Your task to perform on an android device: uninstall "Spotify" Image 0: 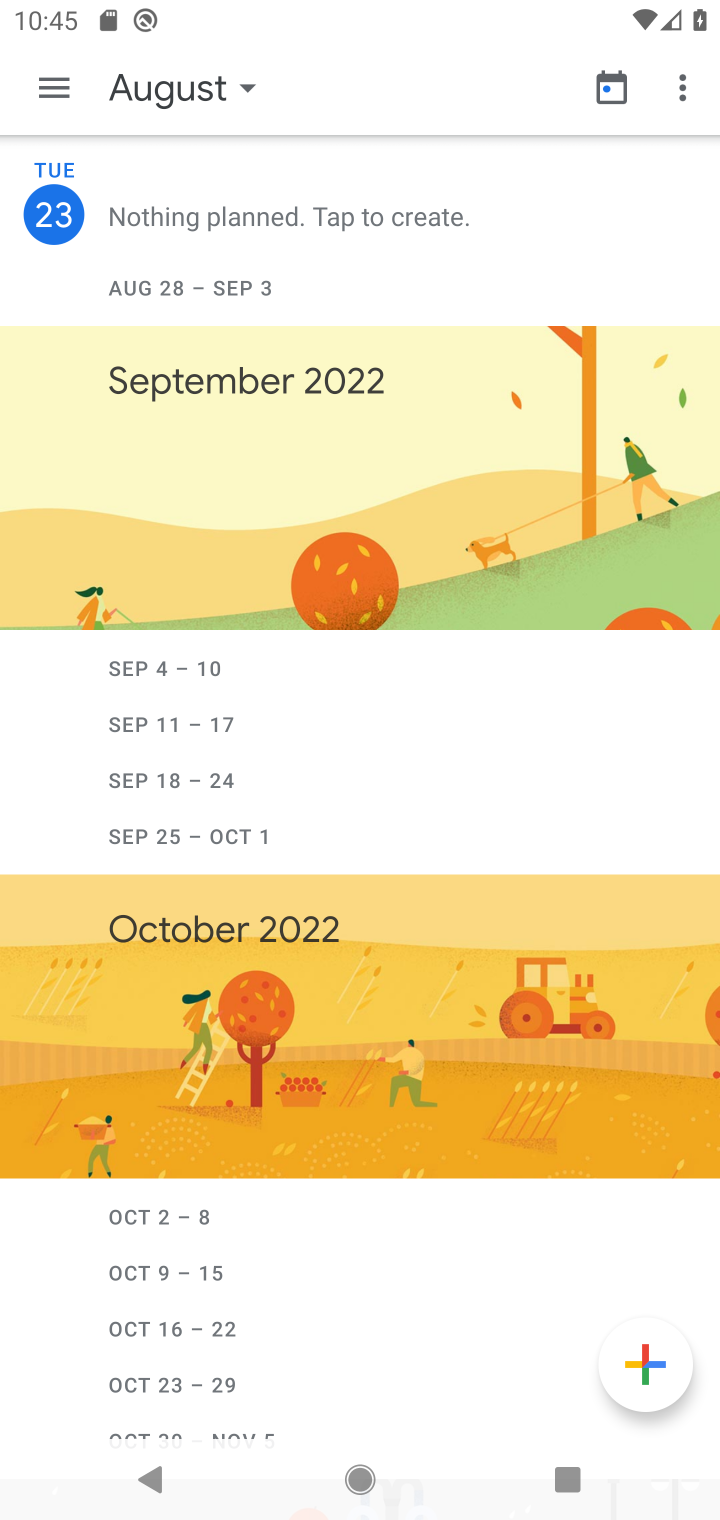
Step 0: press home button
Your task to perform on an android device: uninstall "Spotify" Image 1: 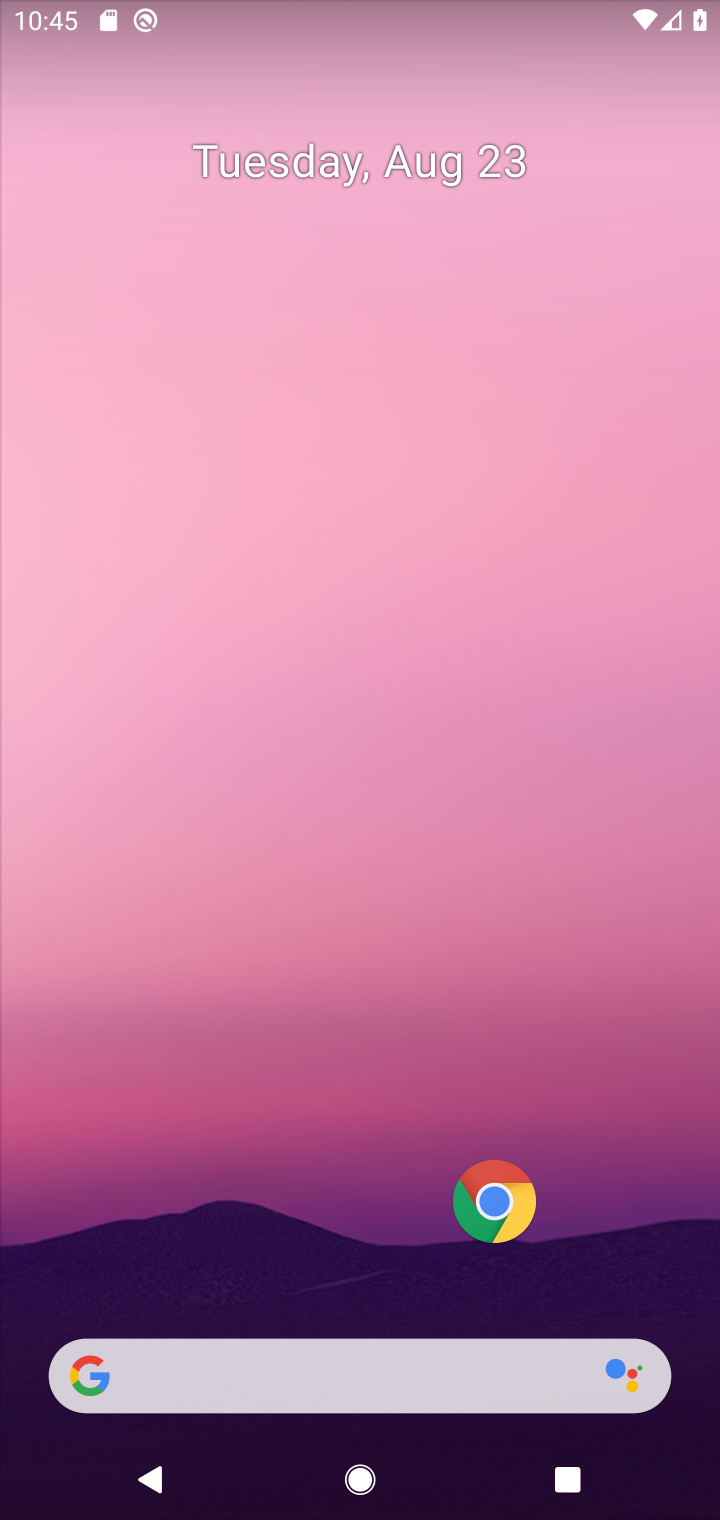
Step 1: drag from (279, 1281) to (323, 513)
Your task to perform on an android device: uninstall "Spotify" Image 2: 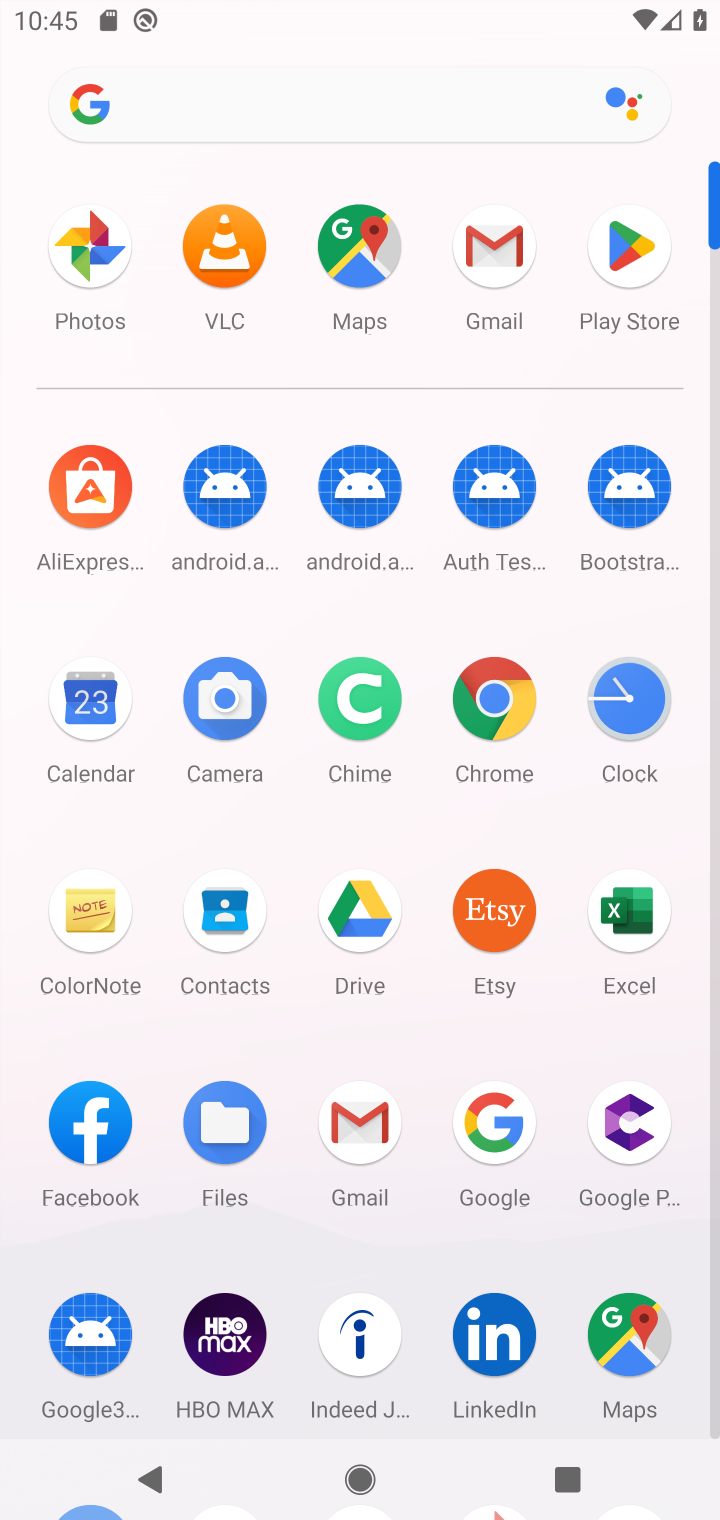
Step 2: click (623, 235)
Your task to perform on an android device: uninstall "Spotify" Image 3: 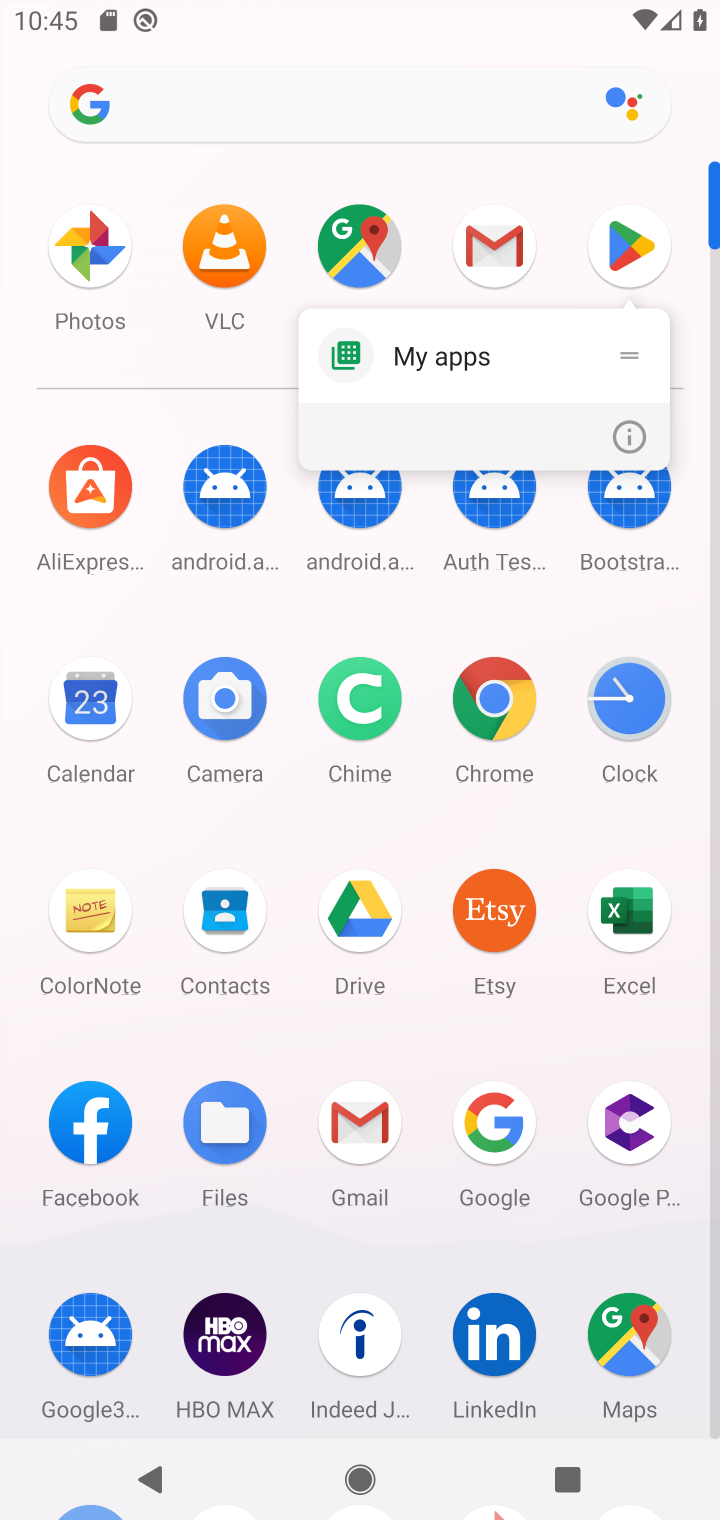
Step 3: drag from (371, 1200) to (474, 441)
Your task to perform on an android device: uninstall "Spotify" Image 4: 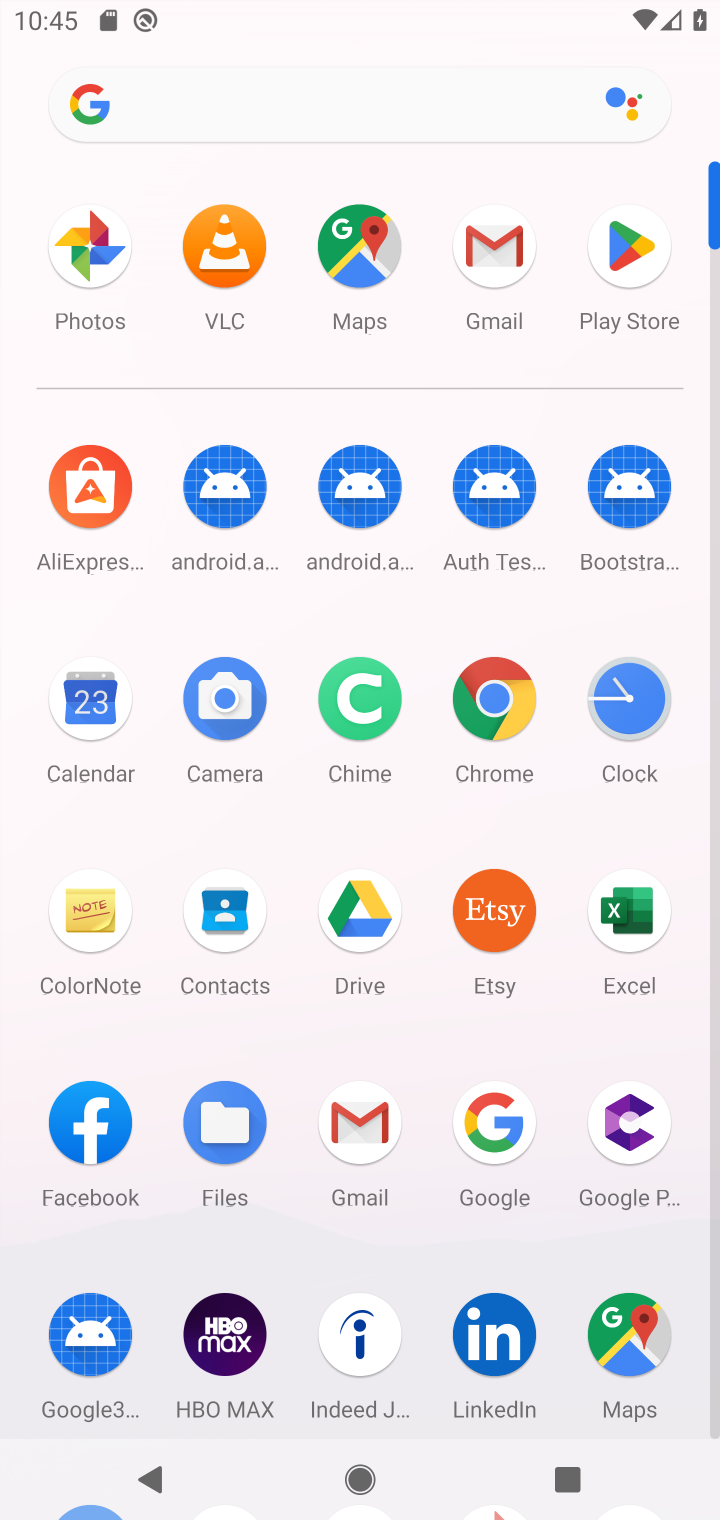
Step 4: drag from (454, 870) to (480, 348)
Your task to perform on an android device: uninstall "Spotify" Image 5: 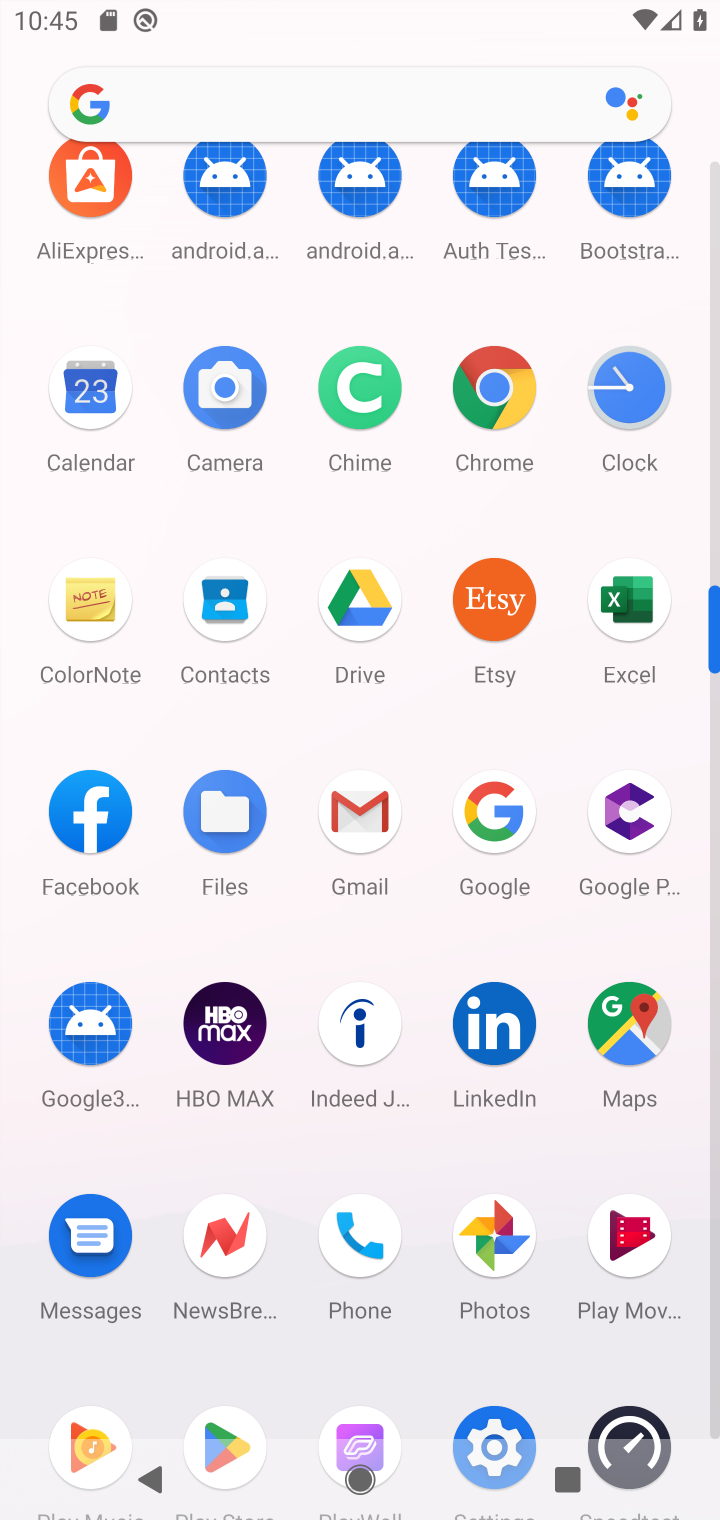
Step 5: drag from (418, 1290) to (457, 406)
Your task to perform on an android device: uninstall "Spotify" Image 6: 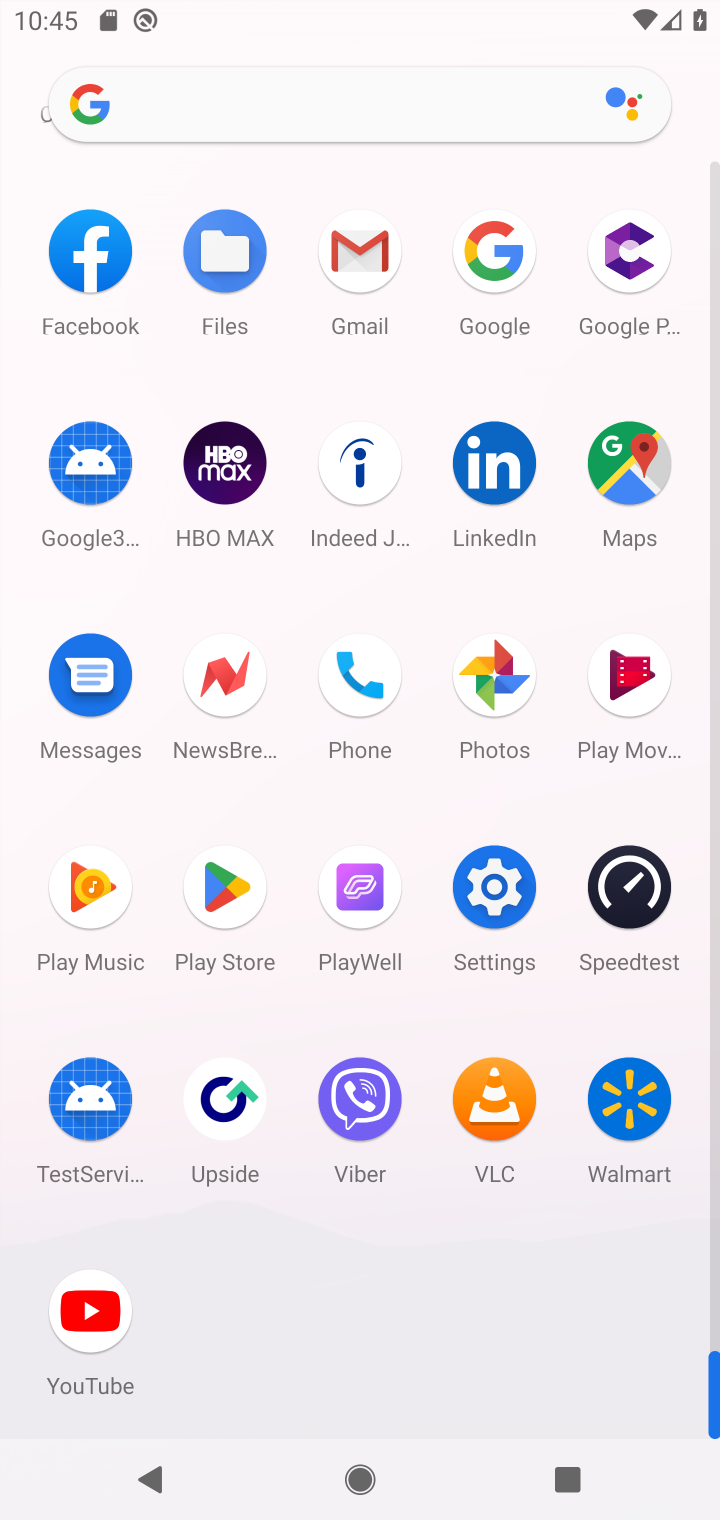
Step 6: click (206, 882)
Your task to perform on an android device: uninstall "Spotify" Image 7: 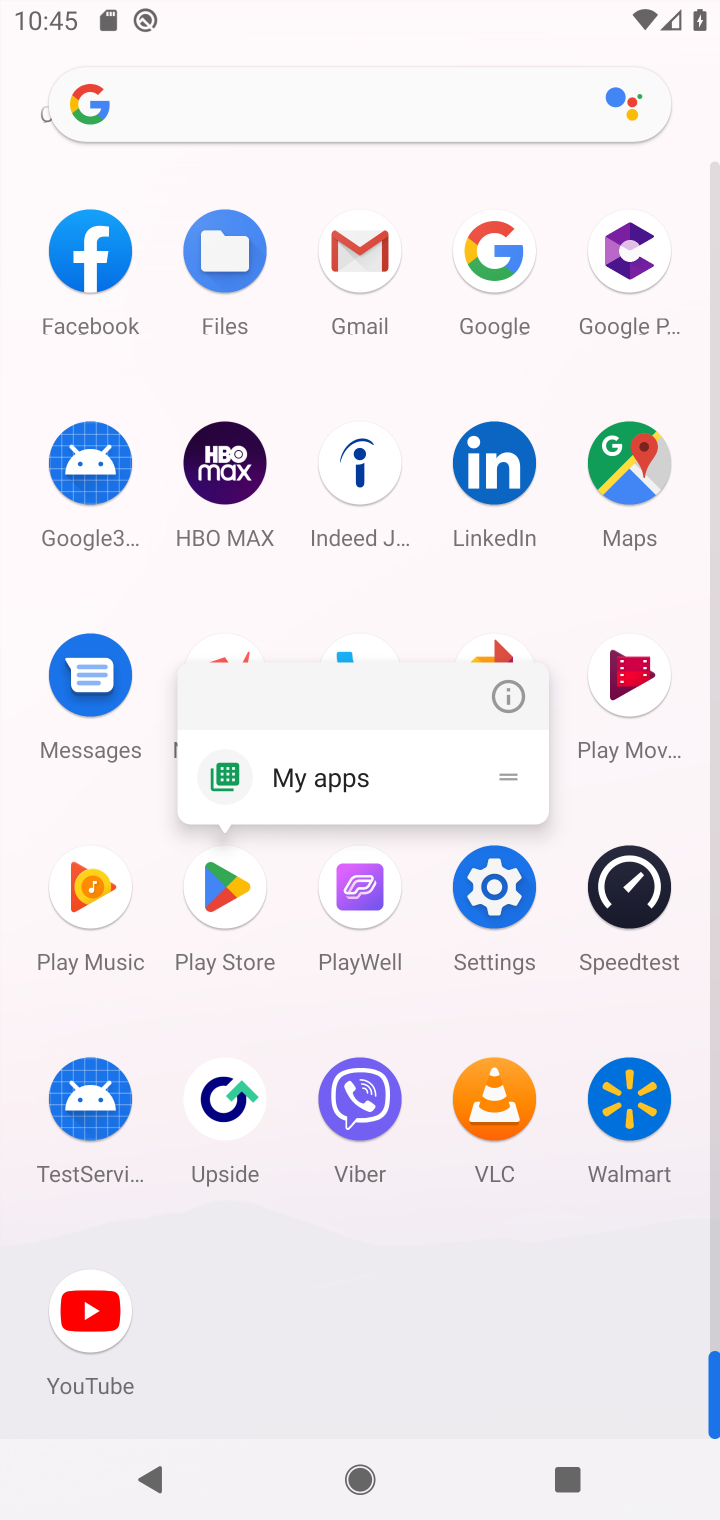
Step 7: click (224, 882)
Your task to perform on an android device: uninstall "Spotify" Image 8: 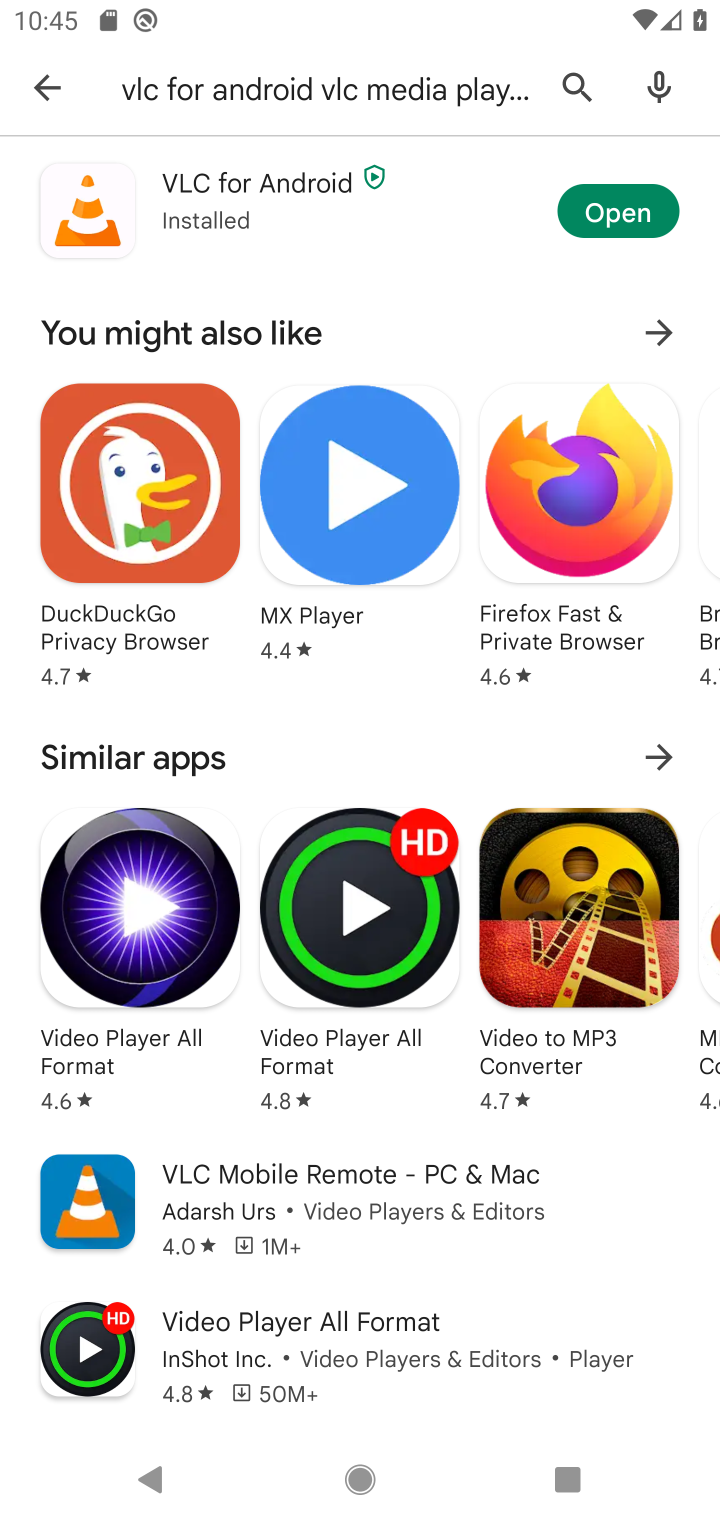
Step 8: click (40, 74)
Your task to perform on an android device: uninstall "Spotify" Image 9: 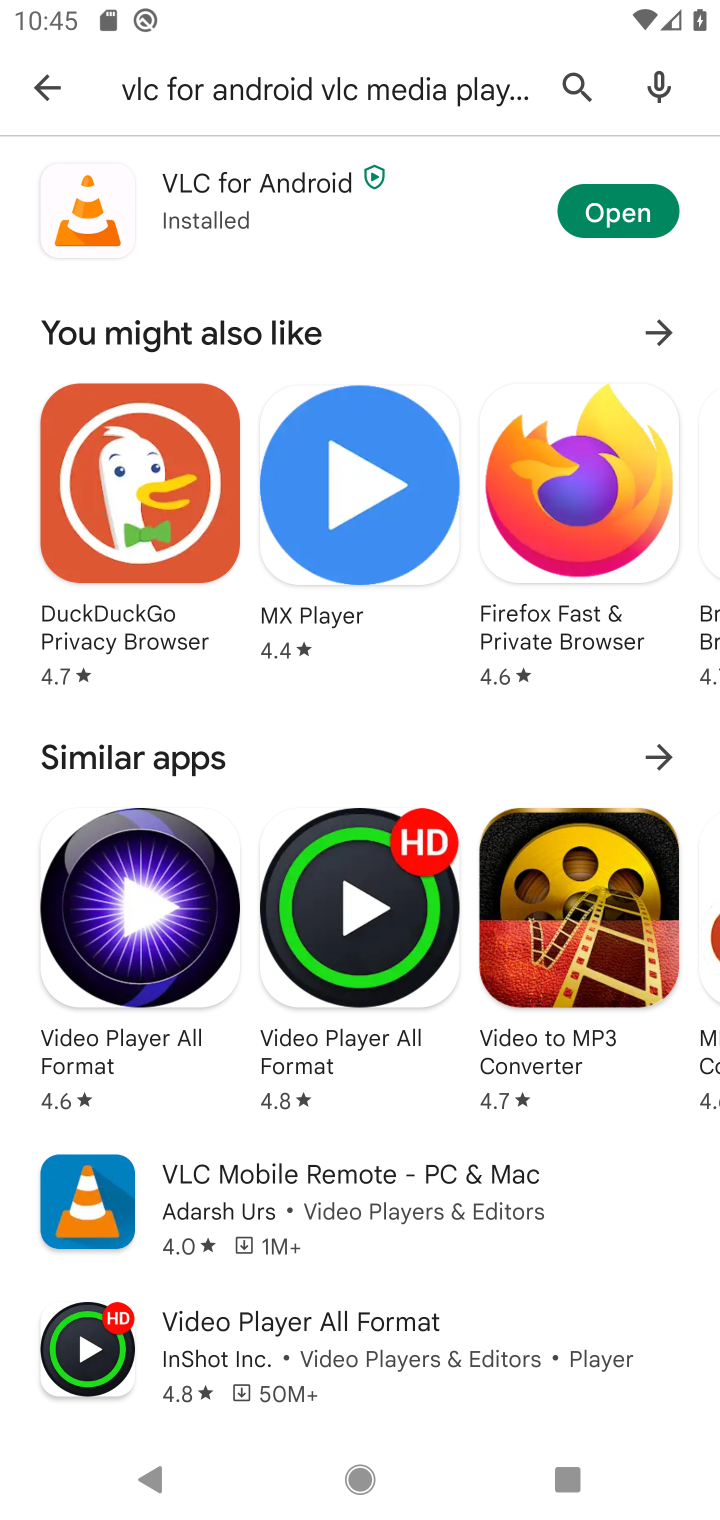
Step 9: click (72, 83)
Your task to perform on an android device: uninstall "Spotify" Image 10: 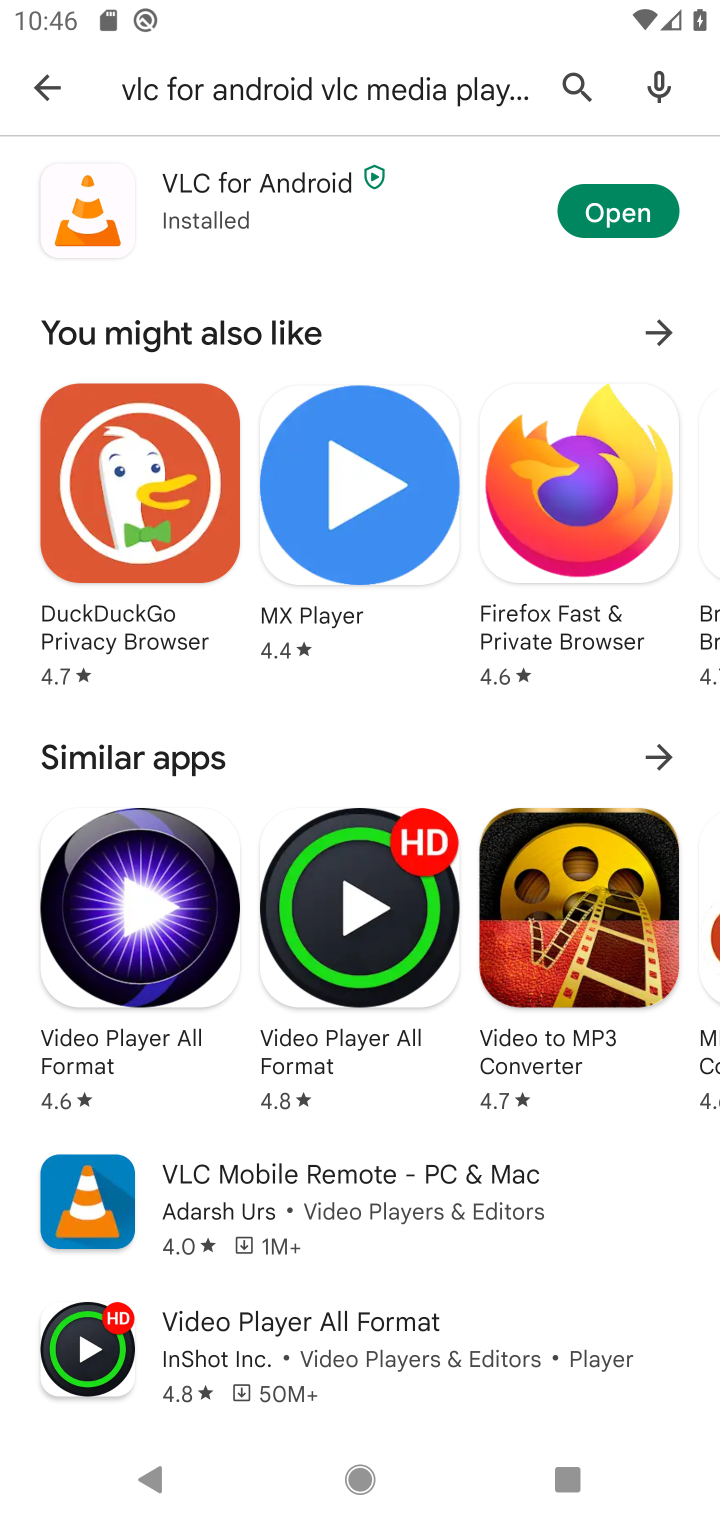
Step 10: click (549, 70)
Your task to perform on an android device: uninstall "Spotify" Image 11: 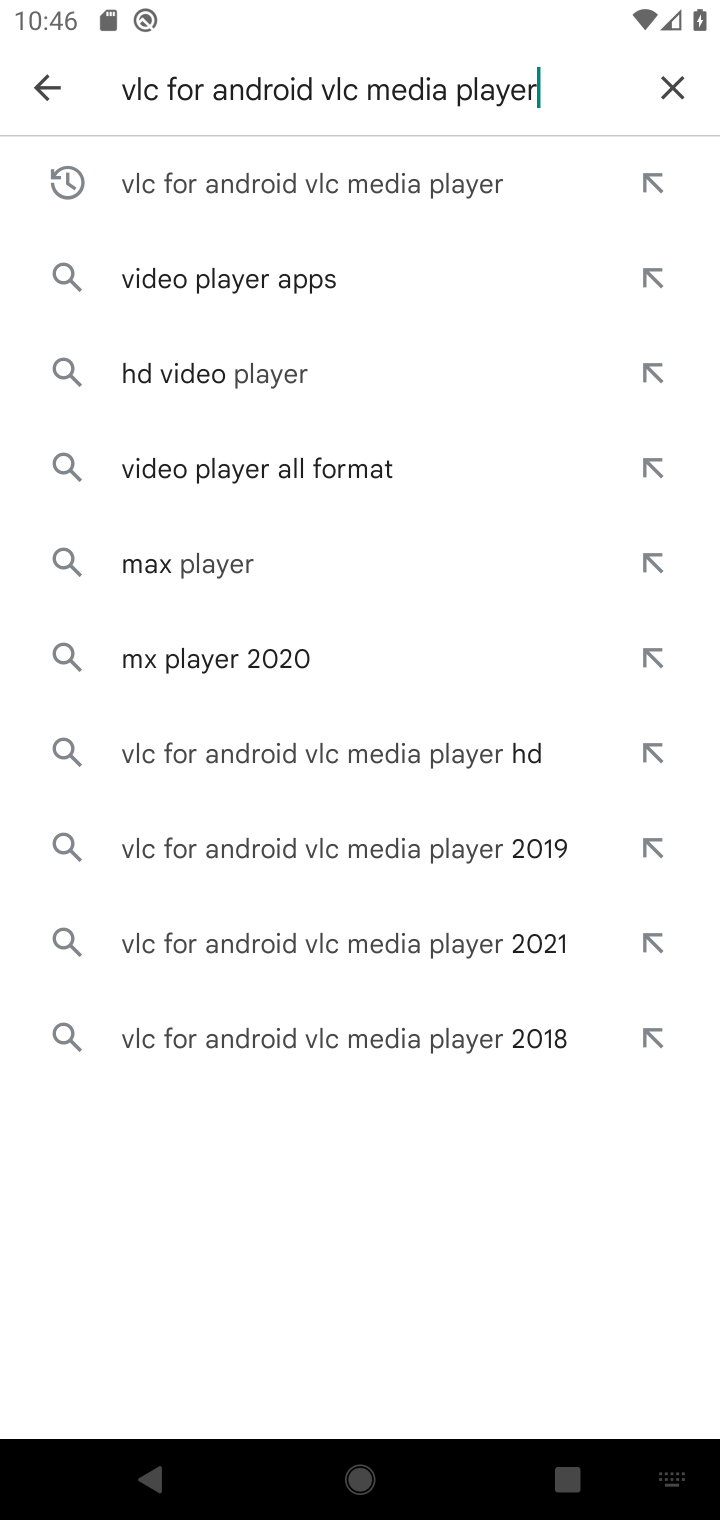
Step 11: click (680, 87)
Your task to perform on an android device: uninstall "Spotify" Image 12: 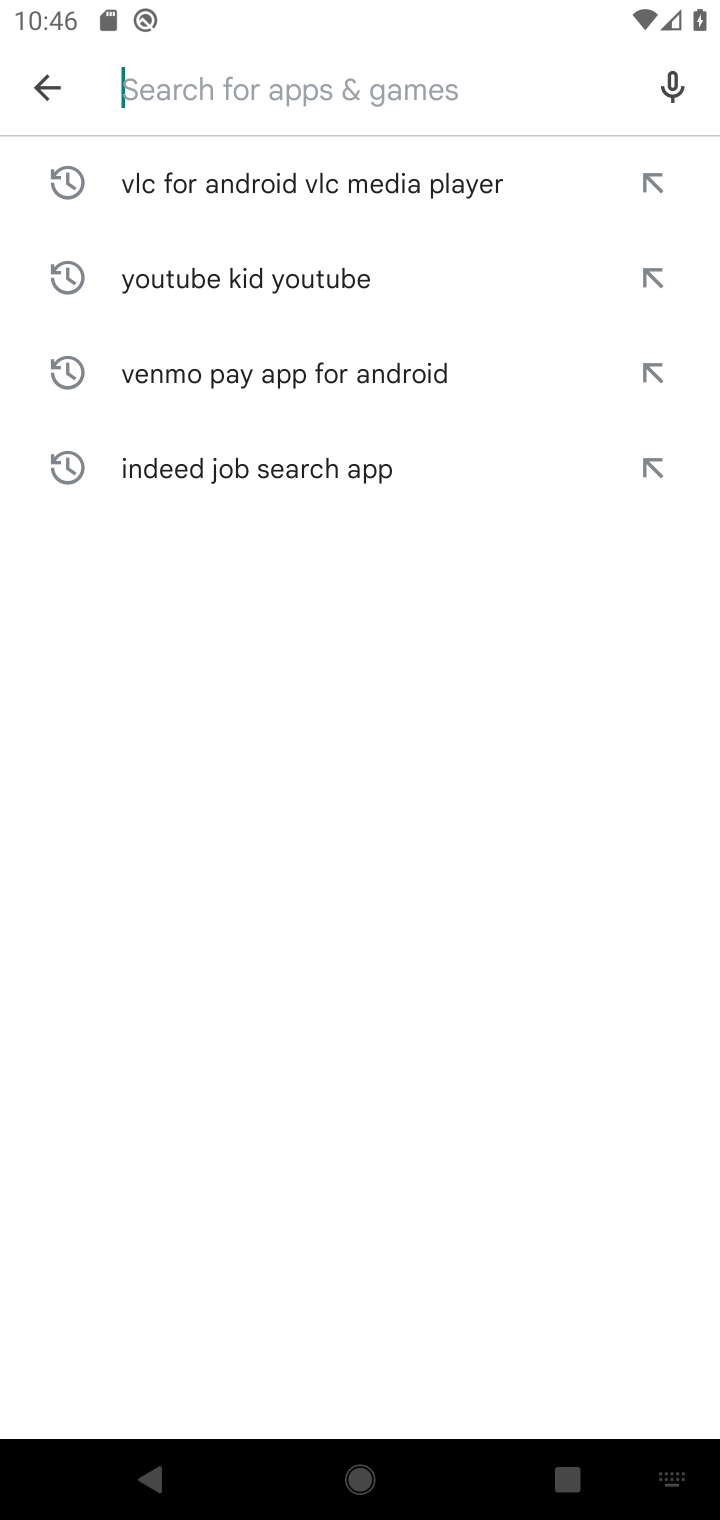
Step 12: click (221, 85)
Your task to perform on an android device: uninstall "Spotify" Image 13: 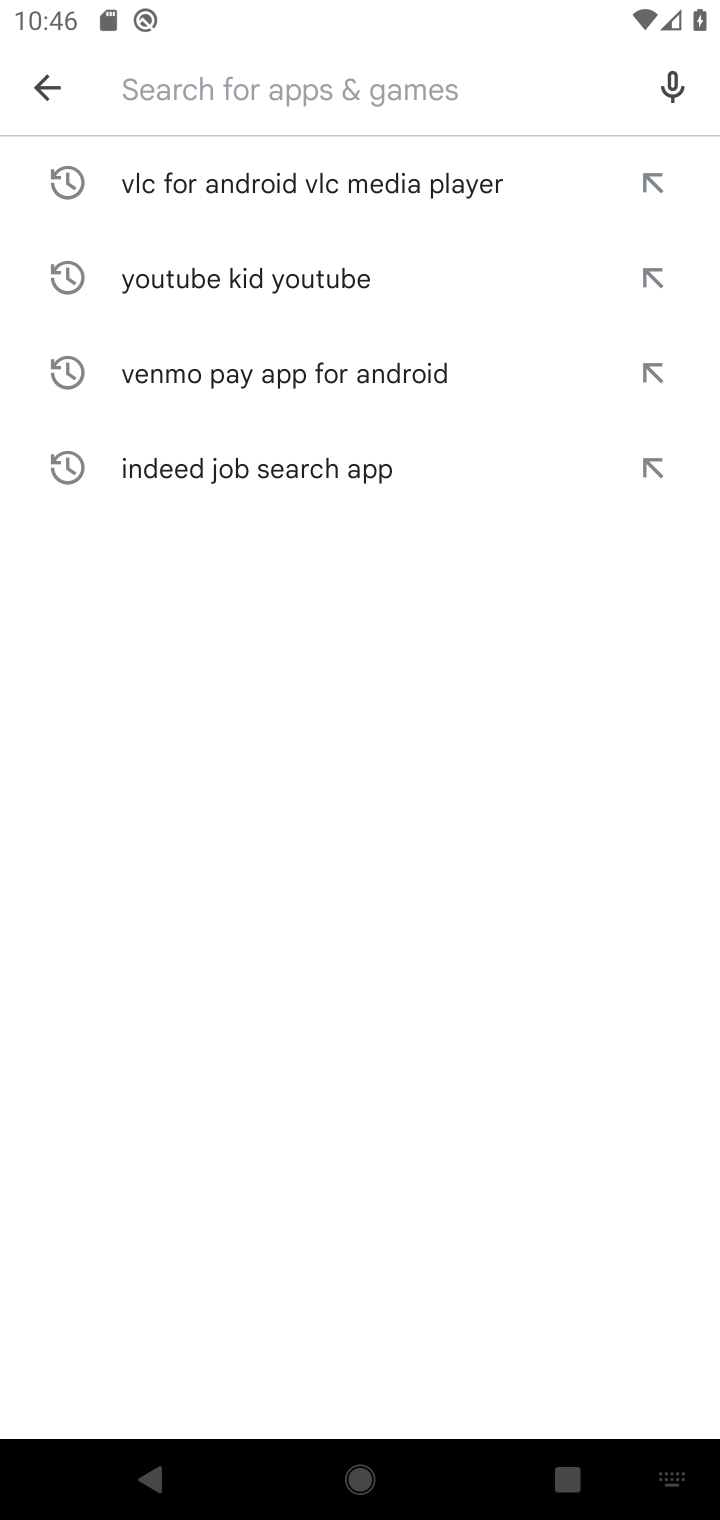
Step 13: type "Spotify "
Your task to perform on an android device: uninstall "Spotify" Image 14: 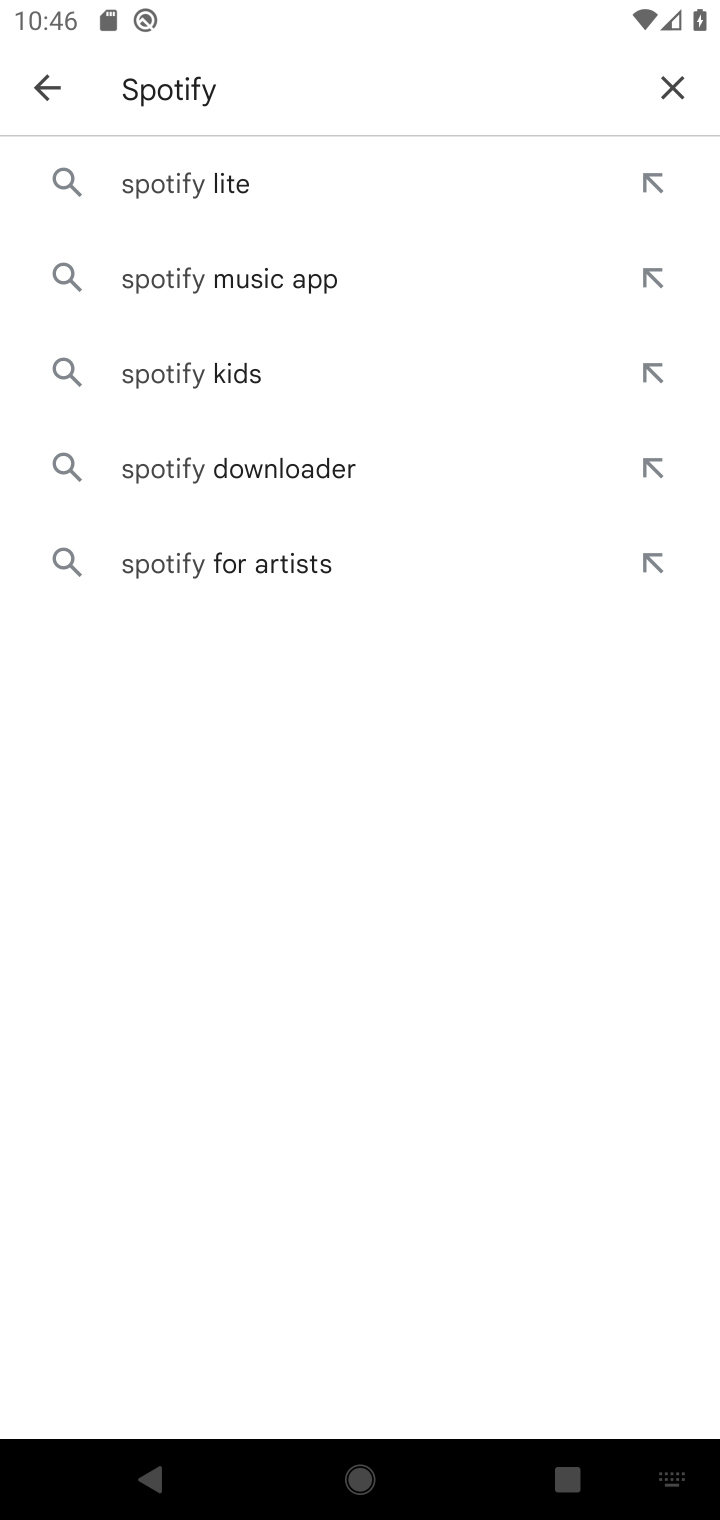
Step 14: click (184, 190)
Your task to perform on an android device: uninstall "Spotify" Image 15: 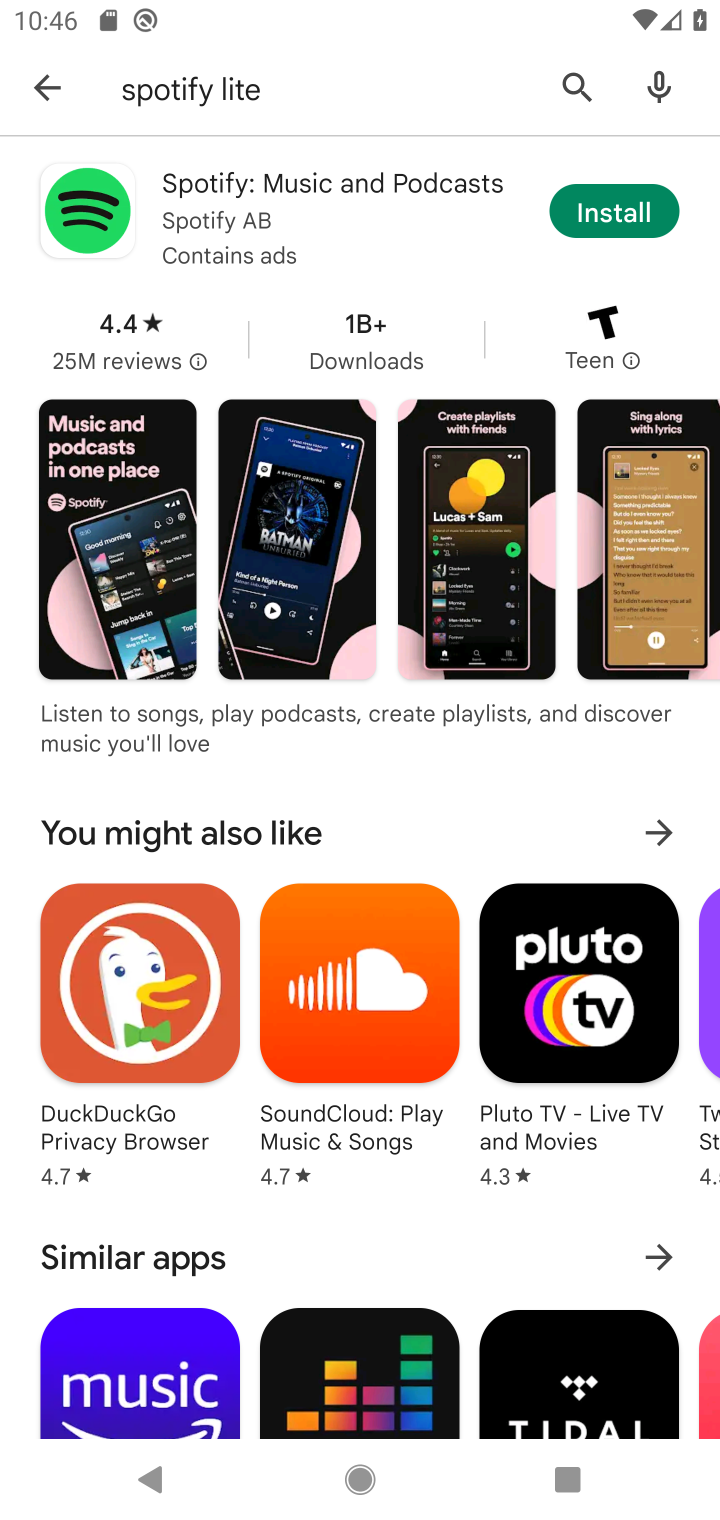
Step 15: task complete